Your task to perform on an android device: Open Youtube and go to the subscriptions tab Image 0: 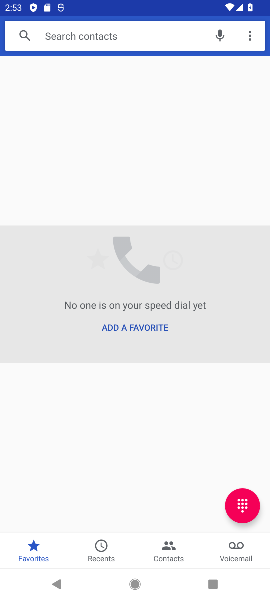
Step 0: press home button
Your task to perform on an android device: Open Youtube and go to the subscriptions tab Image 1: 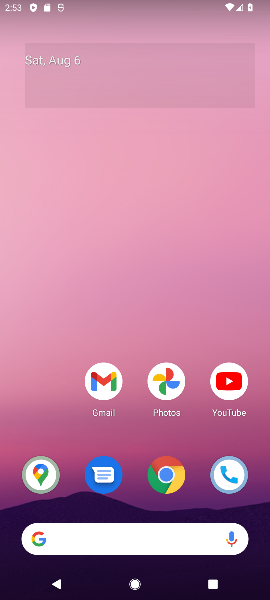
Step 1: click (228, 380)
Your task to perform on an android device: Open Youtube and go to the subscriptions tab Image 2: 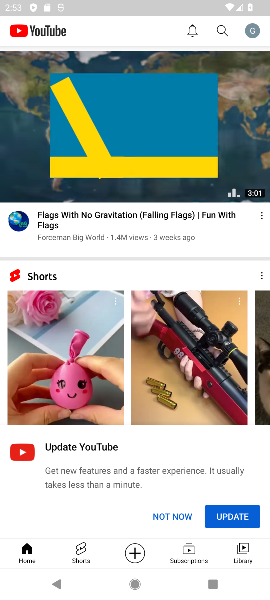
Step 2: click (184, 550)
Your task to perform on an android device: Open Youtube and go to the subscriptions tab Image 3: 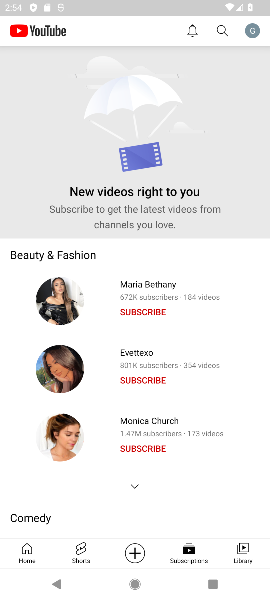
Step 3: task complete